Your task to perform on an android device: turn on notifications settings in the gmail app Image 0: 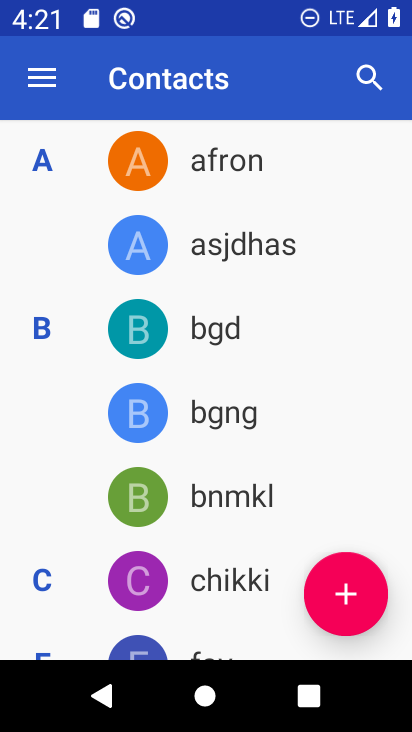
Step 0: press back button
Your task to perform on an android device: turn on notifications settings in the gmail app Image 1: 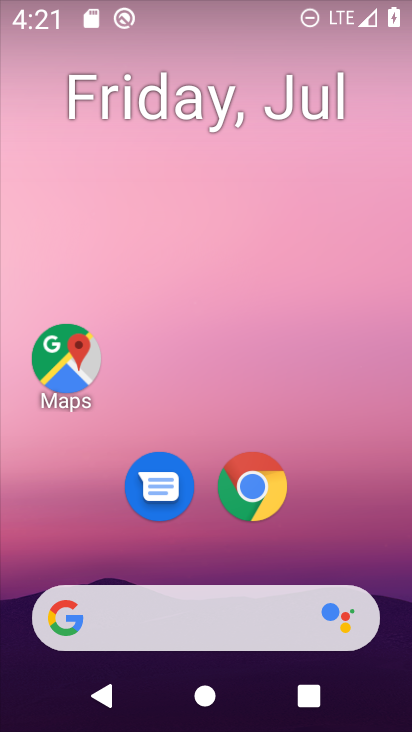
Step 1: drag from (210, 525) to (304, 40)
Your task to perform on an android device: turn on notifications settings in the gmail app Image 2: 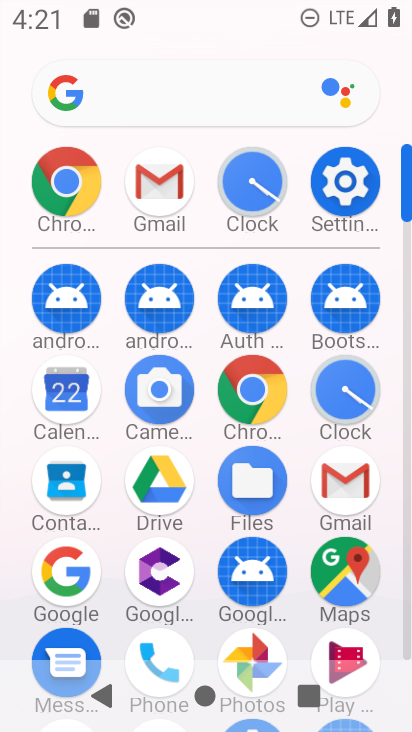
Step 2: click (165, 188)
Your task to perform on an android device: turn on notifications settings in the gmail app Image 3: 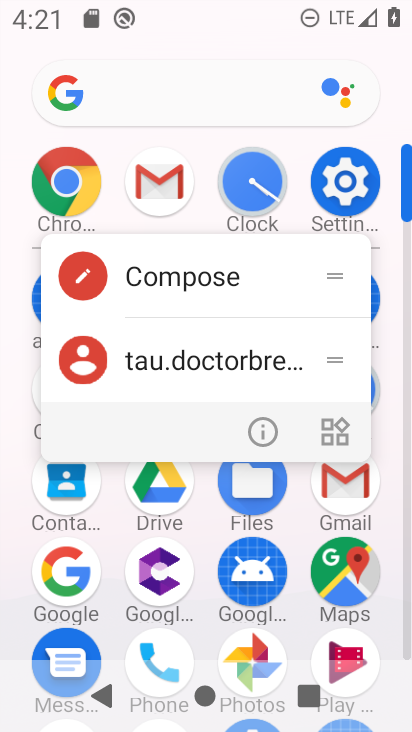
Step 3: click (259, 437)
Your task to perform on an android device: turn on notifications settings in the gmail app Image 4: 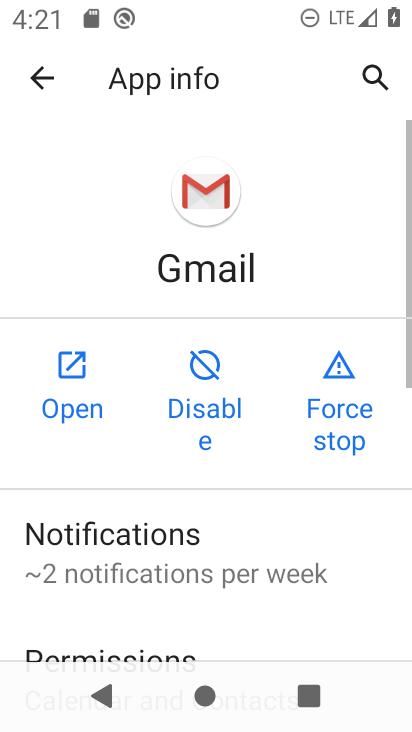
Step 4: click (131, 536)
Your task to perform on an android device: turn on notifications settings in the gmail app Image 5: 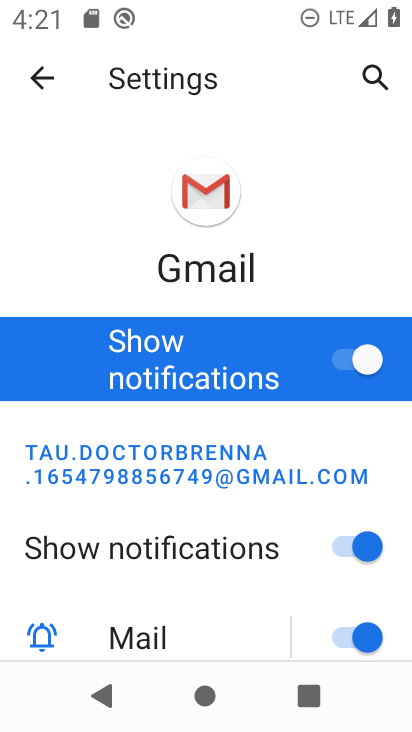
Step 5: task complete